Your task to perform on an android device: Go to settings Image 0: 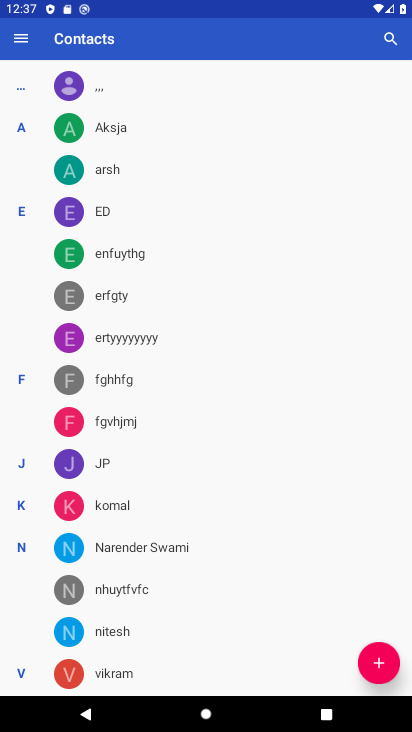
Step 0: task complete